Your task to perform on an android device: Search for acer predator on ebay.com, select the first entry, add it to the cart, then select checkout. Image 0: 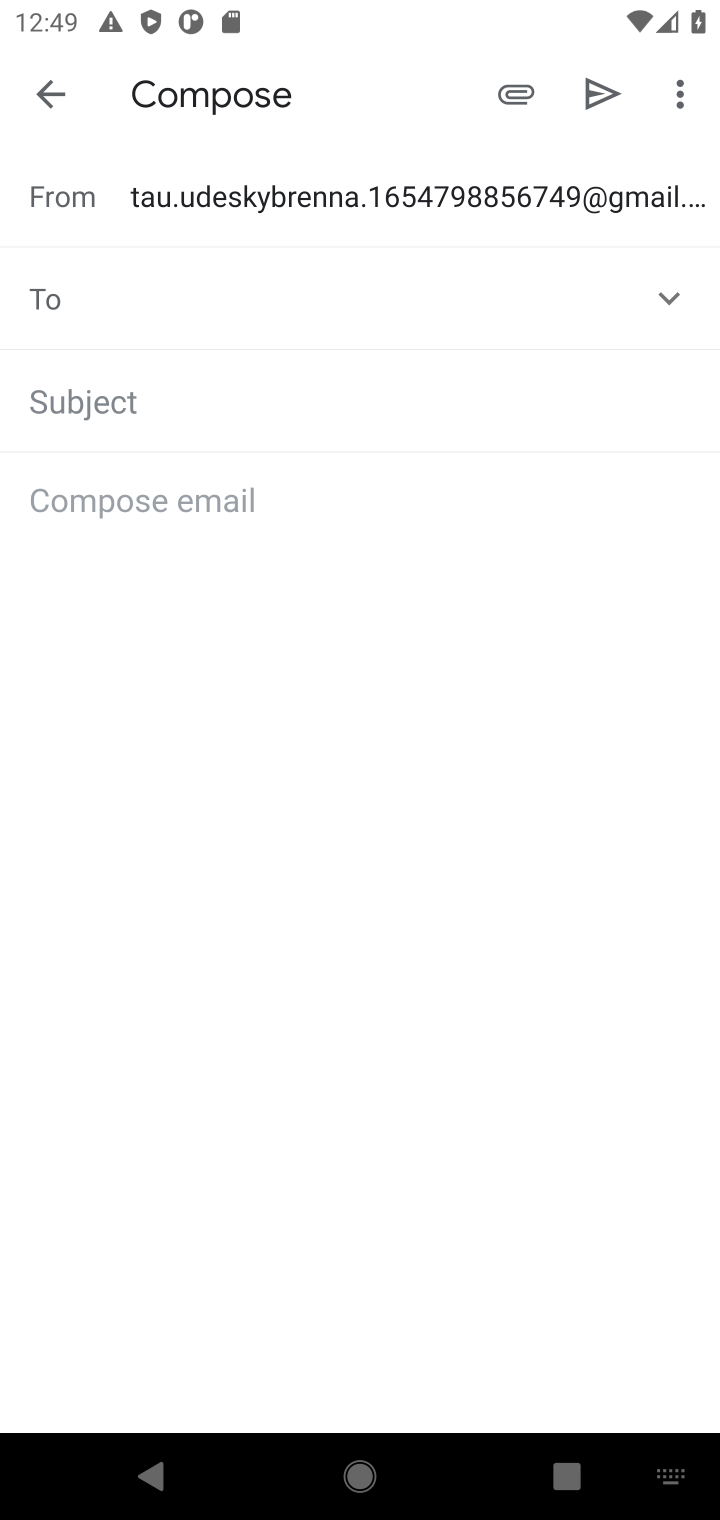
Step 0: task complete